Your task to perform on an android device: Open settings on Google Maps Image 0: 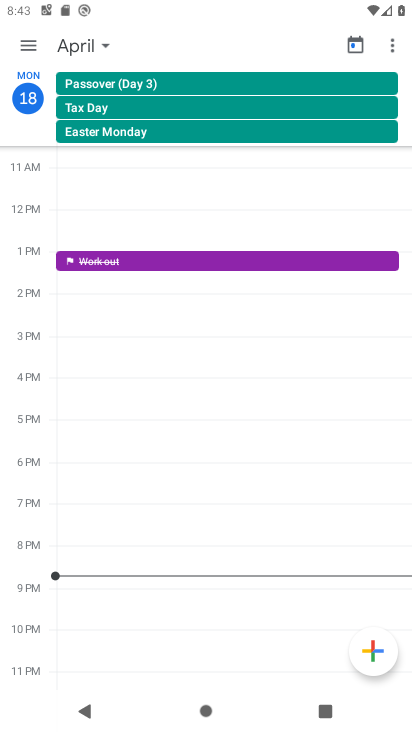
Step 0: press home button
Your task to perform on an android device: Open settings on Google Maps Image 1: 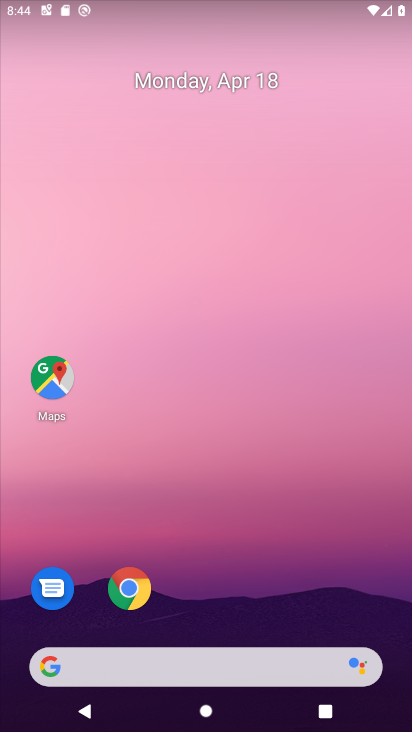
Step 1: click (63, 360)
Your task to perform on an android device: Open settings on Google Maps Image 2: 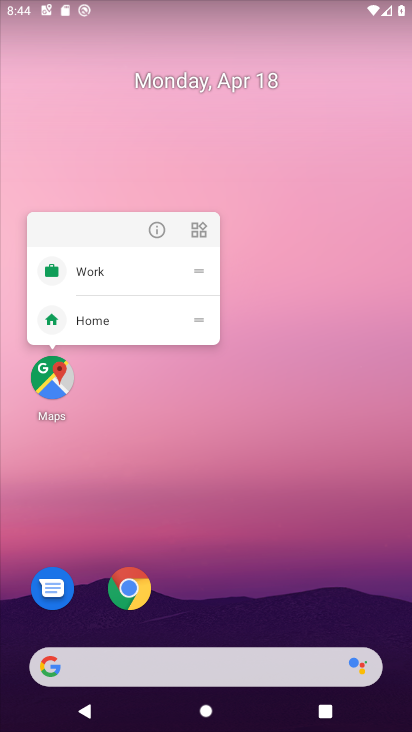
Step 2: click (55, 384)
Your task to perform on an android device: Open settings on Google Maps Image 3: 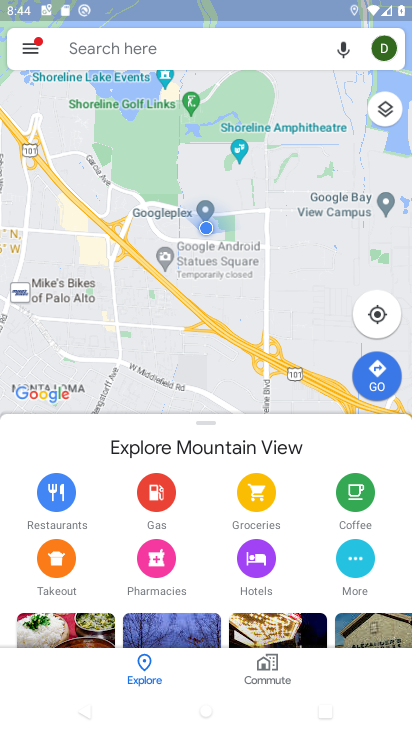
Step 3: click (31, 42)
Your task to perform on an android device: Open settings on Google Maps Image 4: 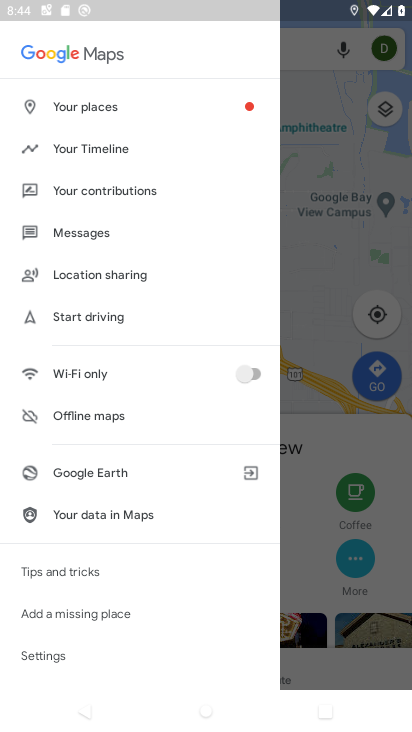
Step 4: click (67, 658)
Your task to perform on an android device: Open settings on Google Maps Image 5: 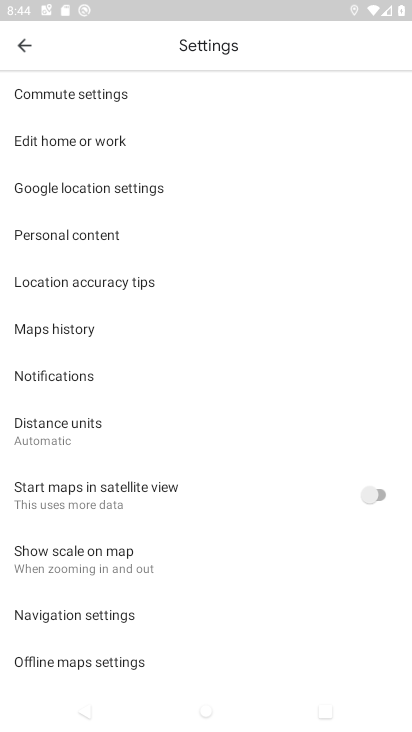
Step 5: task complete